Your task to perform on an android device: Open battery settings Image 0: 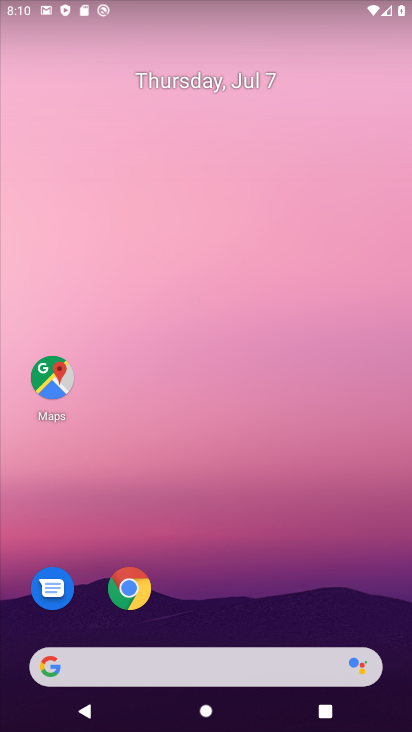
Step 0: drag from (352, 558) to (315, 148)
Your task to perform on an android device: Open battery settings Image 1: 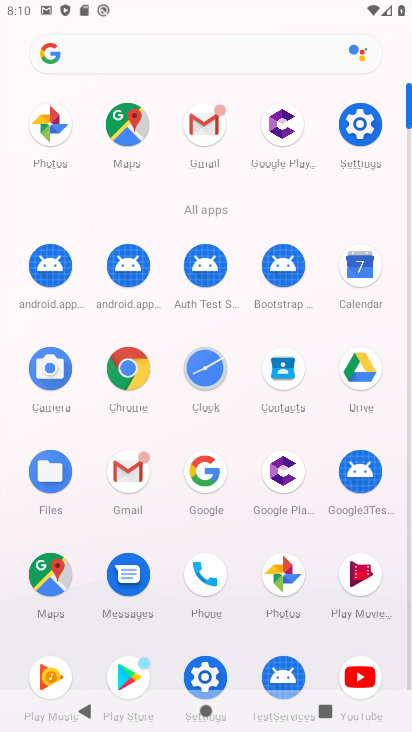
Step 1: click (355, 147)
Your task to perform on an android device: Open battery settings Image 2: 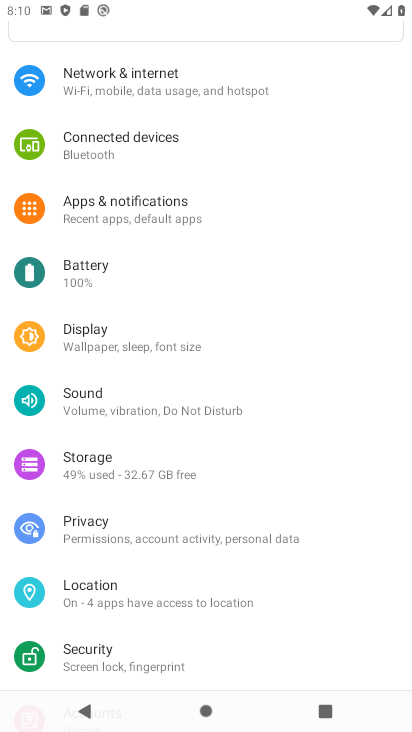
Step 2: click (159, 269)
Your task to perform on an android device: Open battery settings Image 3: 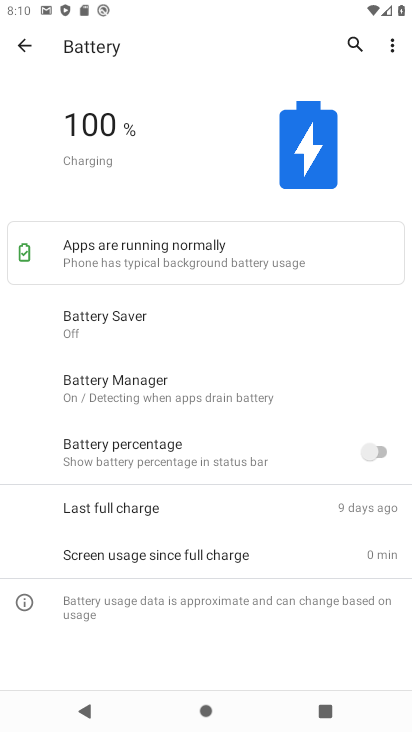
Step 3: task complete